Your task to perform on an android device: change your default location settings in chrome Image 0: 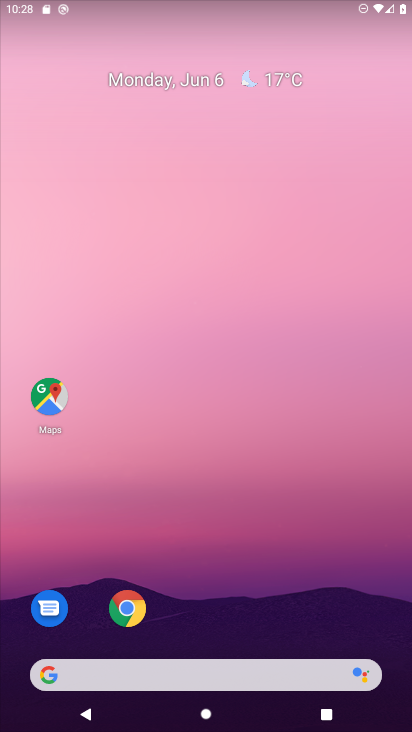
Step 0: drag from (145, 643) to (40, 0)
Your task to perform on an android device: change your default location settings in chrome Image 1: 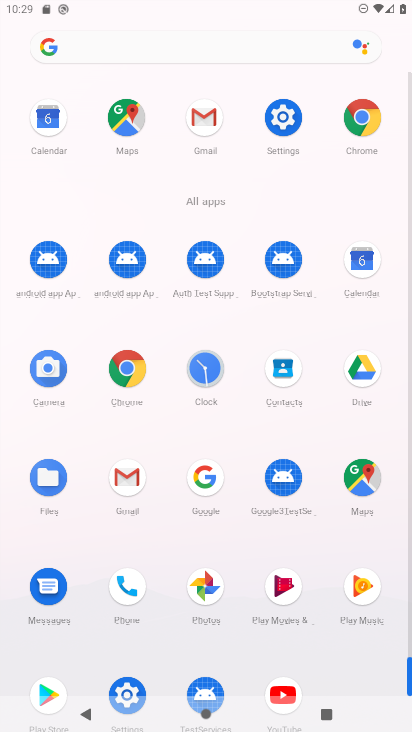
Step 1: click (373, 129)
Your task to perform on an android device: change your default location settings in chrome Image 2: 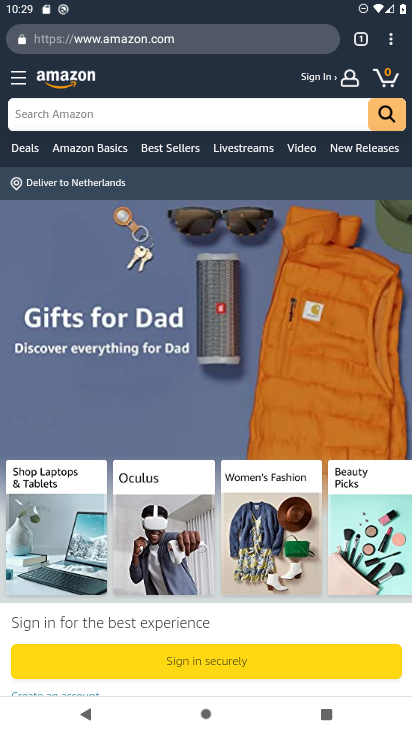
Step 2: click (394, 41)
Your task to perform on an android device: change your default location settings in chrome Image 3: 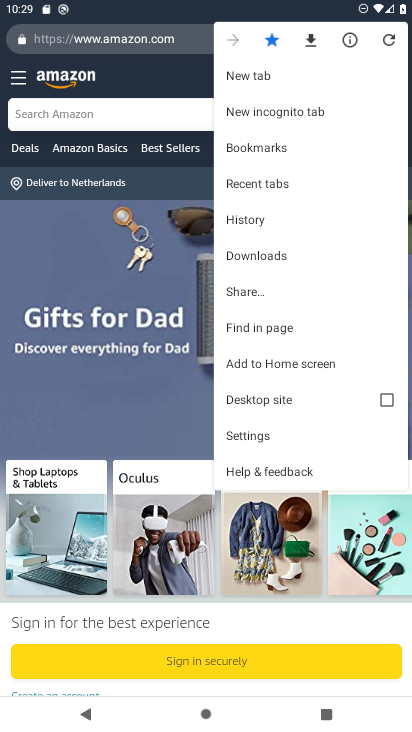
Step 3: click (273, 438)
Your task to perform on an android device: change your default location settings in chrome Image 4: 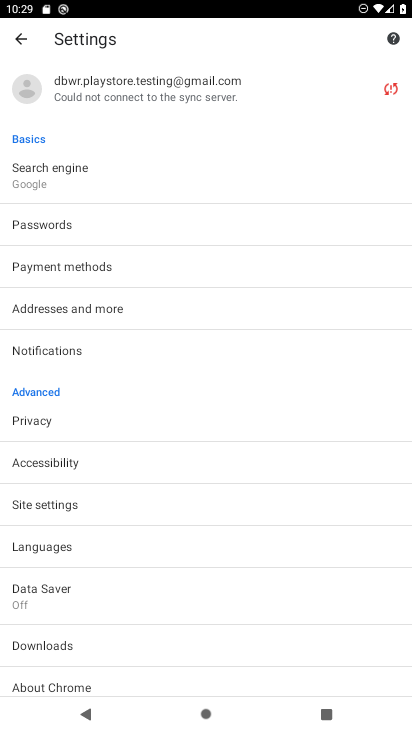
Step 4: click (69, 507)
Your task to perform on an android device: change your default location settings in chrome Image 5: 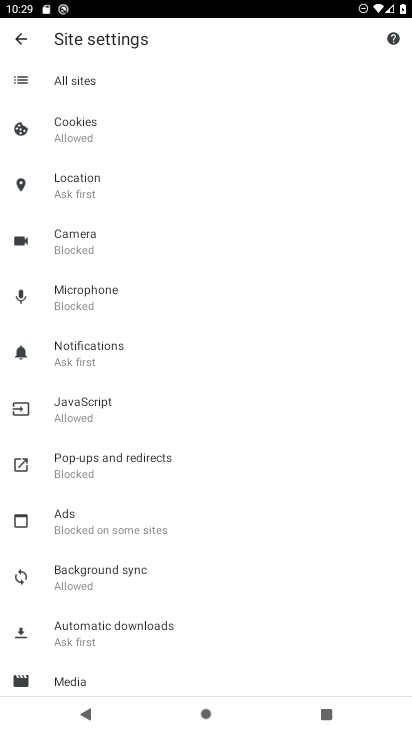
Step 5: click (107, 191)
Your task to perform on an android device: change your default location settings in chrome Image 6: 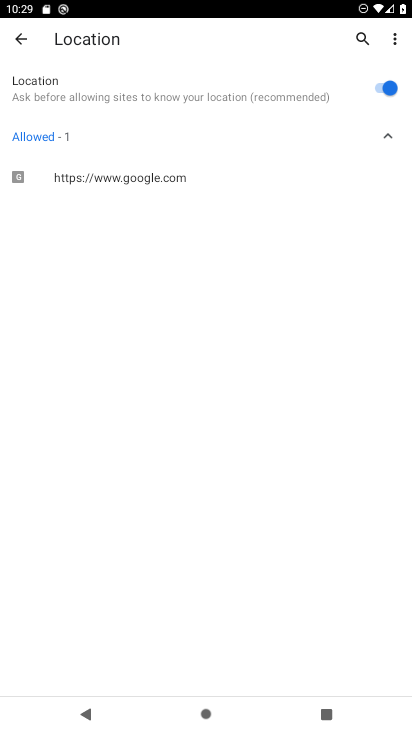
Step 6: click (400, 41)
Your task to perform on an android device: change your default location settings in chrome Image 7: 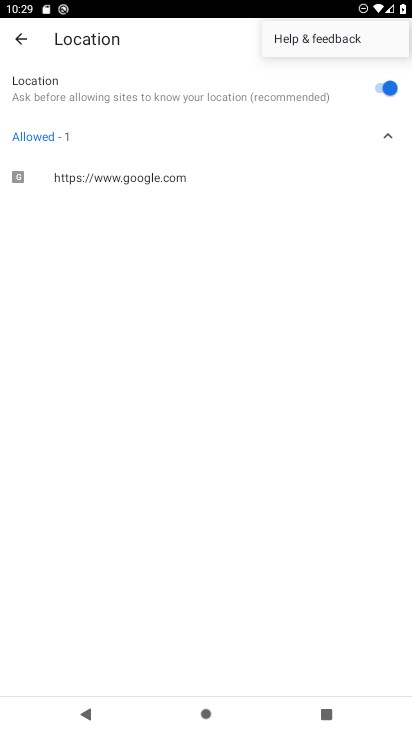
Step 7: click (334, 98)
Your task to perform on an android device: change your default location settings in chrome Image 8: 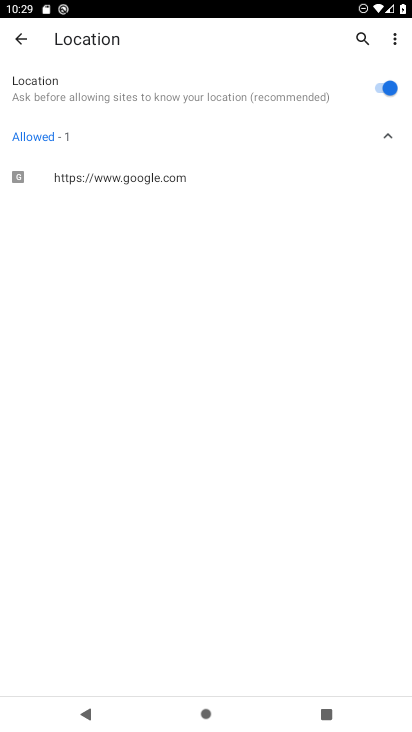
Step 8: task complete